Your task to perform on an android device: turn off picture-in-picture Image 0: 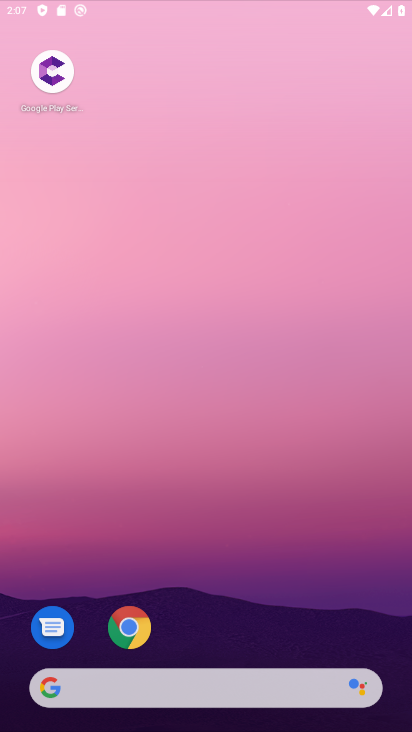
Step 0: drag from (284, 219) to (186, 18)
Your task to perform on an android device: turn off picture-in-picture Image 1: 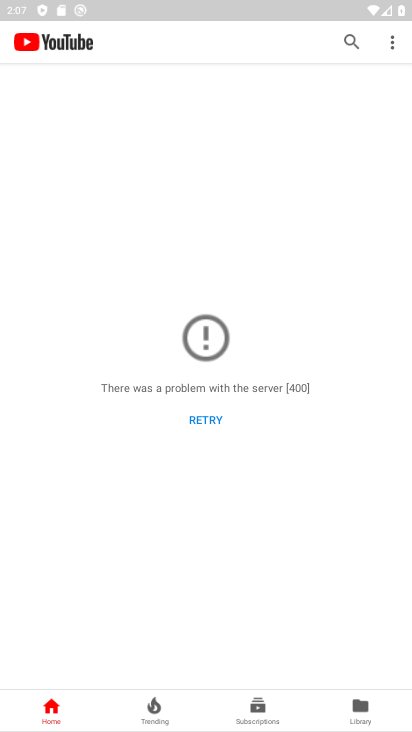
Step 1: press home button
Your task to perform on an android device: turn off picture-in-picture Image 2: 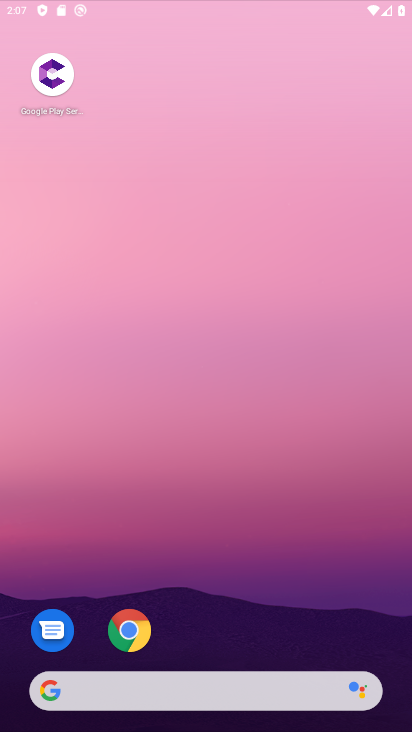
Step 2: drag from (384, 676) to (212, 45)
Your task to perform on an android device: turn off picture-in-picture Image 3: 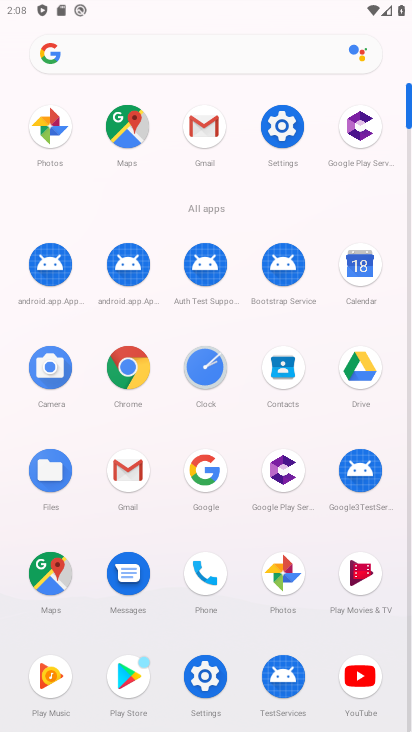
Step 3: click (135, 371)
Your task to perform on an android device: turn off picture-in-picture Image 4: 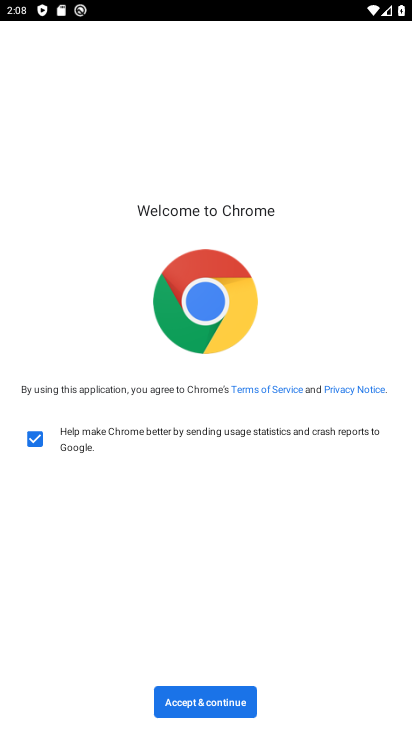
Step 4: task complete